Your task to perform on an android device: Open the calendar and show me this week's events Image 0: 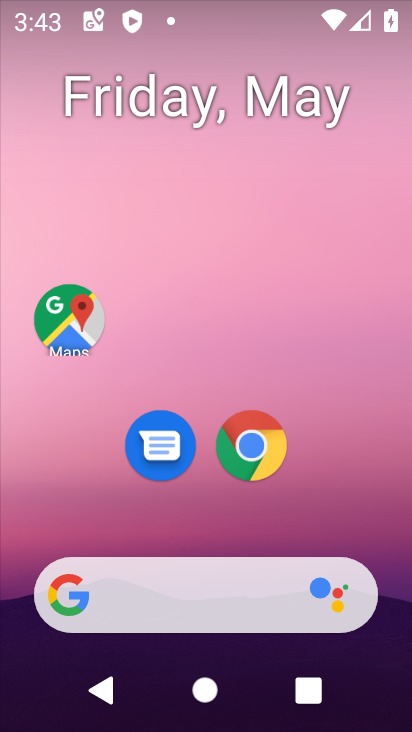
Step 0: drag from (209, 450) to (236, 104)
Your task to perform on an android device: Open the calendar and show me this week's events Image 1: 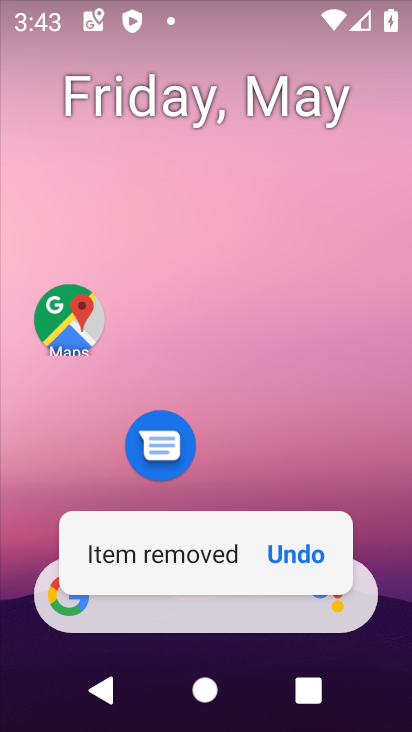
Step 1: drag from (208, 373) to (224, 5)
Your task to perform on an android device: Open the calendar and show me this week's events Image 2: 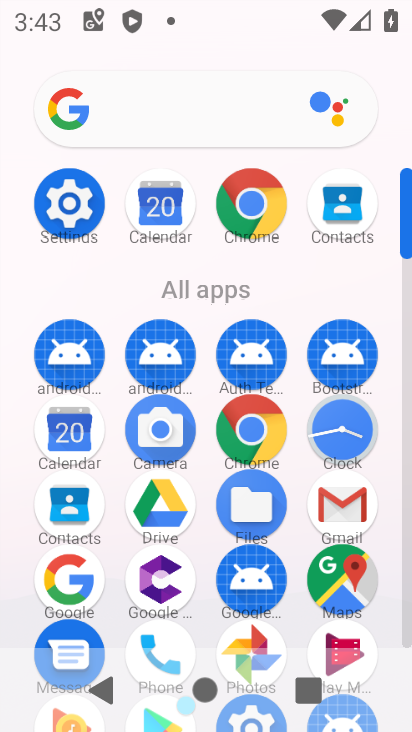
Step 2: click (68, 448)
Your task to perform on an android device: Open the calendar and show me this week's events Image 3: 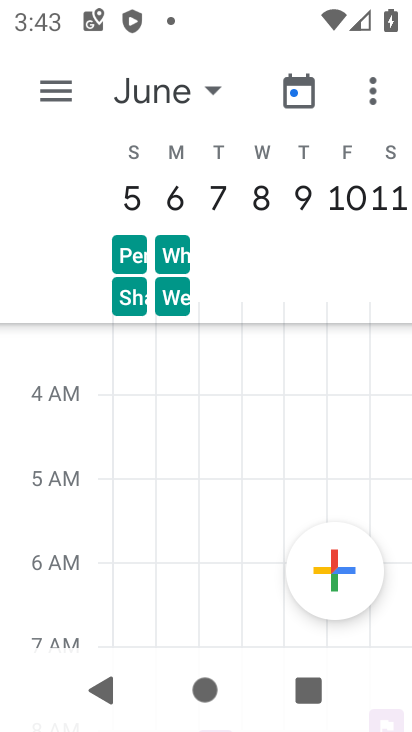
Step 3: click (59, 97)
Your task to perform on an android device: Open the calendar and show me this week's events Image 4: 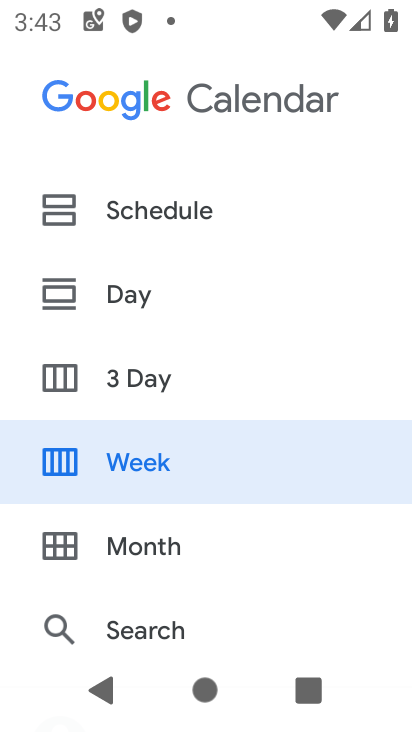
Step 4: drag from (147, 498) to (172, 385)
Your task to perform on an android device: Open the calendar and show me this week's events Image 5: 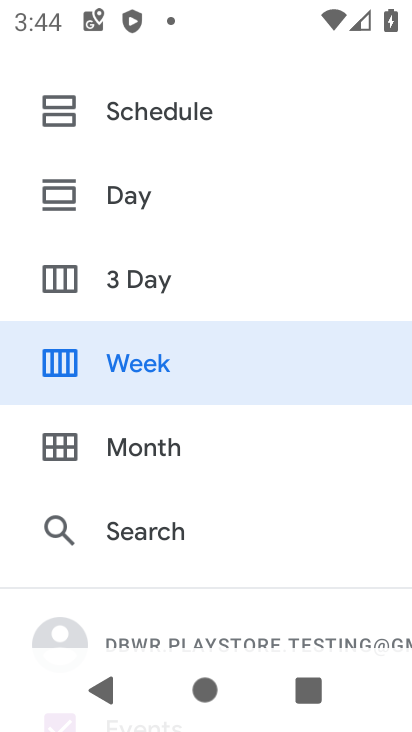
Step 5: drag from (140, 532) to (231, 20)
Your task to perform on an android device: Open the calendar and show me this week's events Image 6: 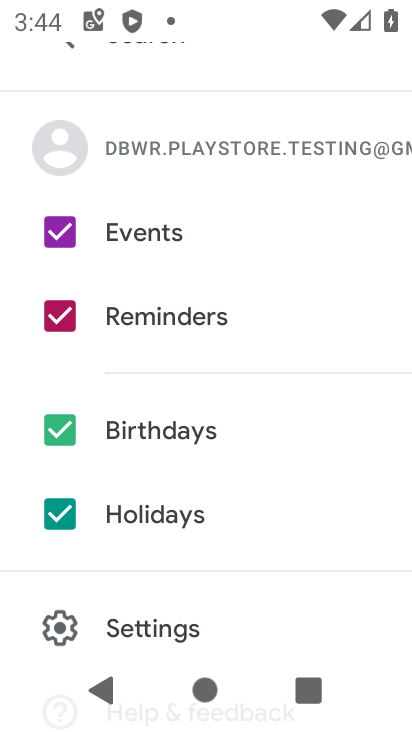
Step 6: click (145, 546)
Your task to perform on an android device: Open the calendar and show me this week's events Image 7: 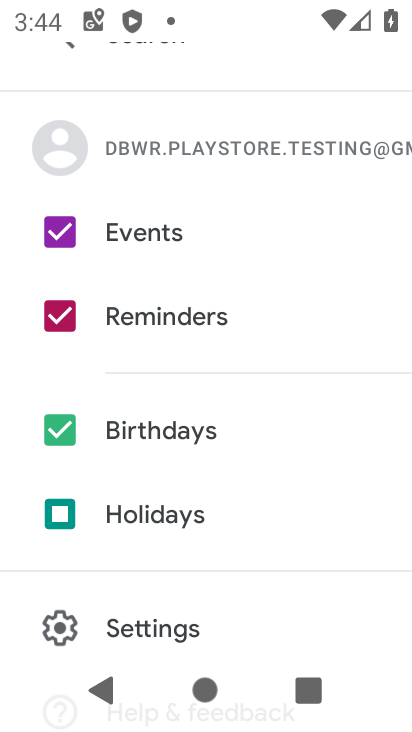
Step 7: click (150, 422)
Your task to perform on an android device: Open the calendar and show me this week's events Image 8: 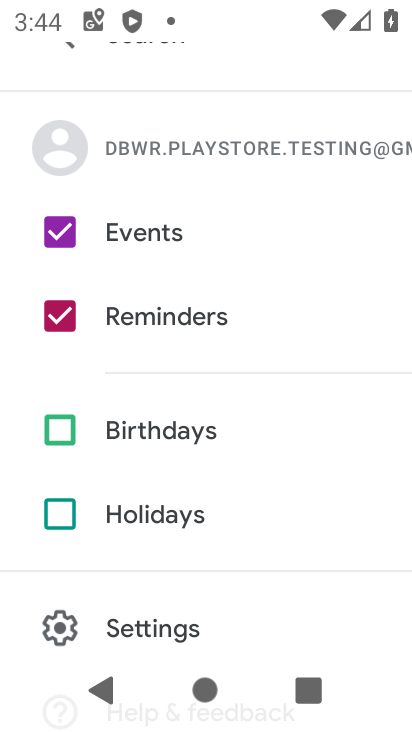
Step 8: click (145, 306)
Your task to perform on an android device: Open the calendar and show me this week's events Image 9: 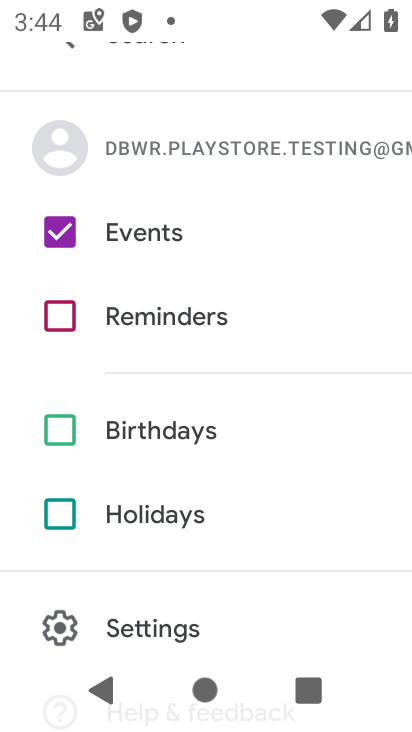
Step 9: drag from (201, 245) to (171, 519)
Your task to perform on an android device: Open the calendar and show me this week's events Image 10: 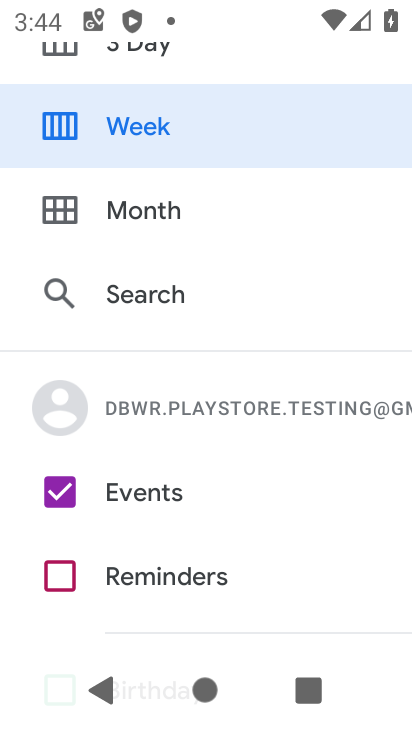
Step 10: click (121, 120)
Your task to perform on an android device: Open the calendar and show me this week's events Image 11: 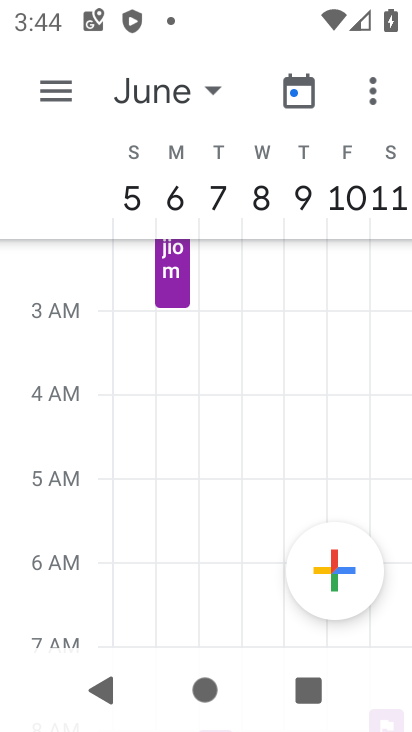
Step 11: task complete